Your task to perform on an android device: all mails in gmail Image 0: 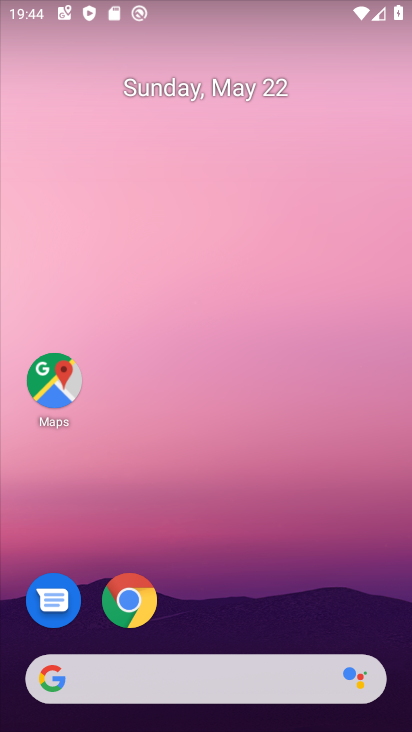
Step 0: drag from (240, 561) to (244, 0)
Your task to perform on an android device: all mails in gmail Image 1: 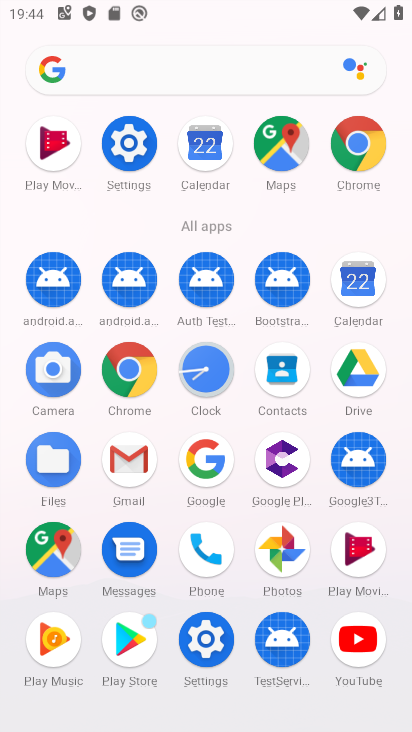
Step 1: drag from (5, 534) to (18, 328)
Your task to perform on an android device: all mails in gmail Image 2: 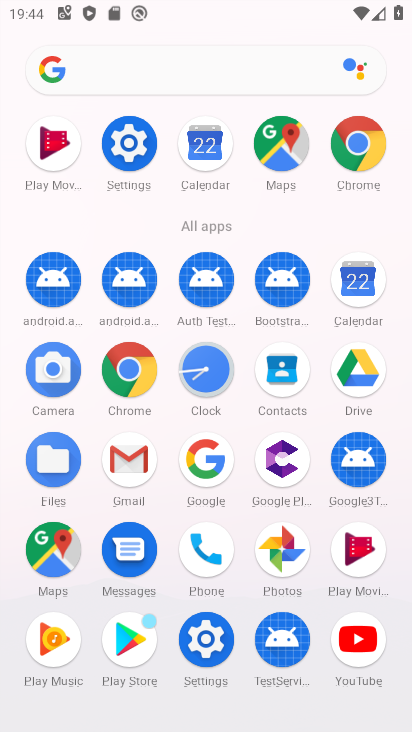
Step 2: click (123, 459)
Your task to perform on an android device: all mails in gmail Image 3: 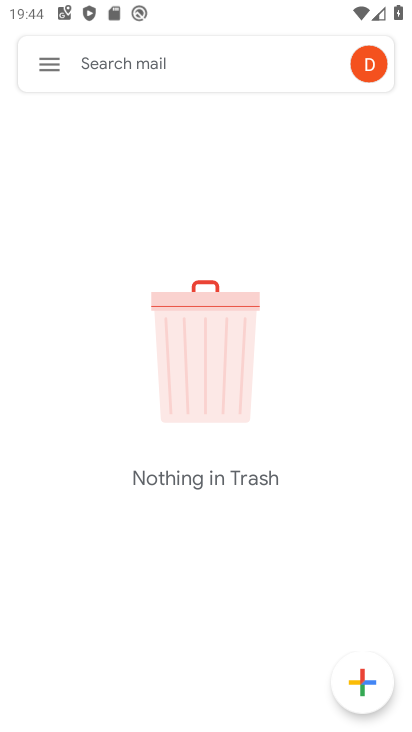
Step 3: click (32, 61)
Your task to perform on an android device: all mails in gmail Image 4: 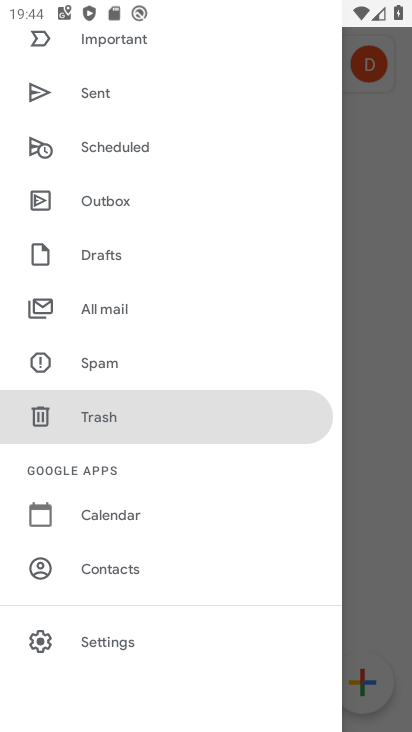
Step 4: drag from (147, 129) to (186, 487)
Your task to perform on an android device: all mails in gmail Image 5: 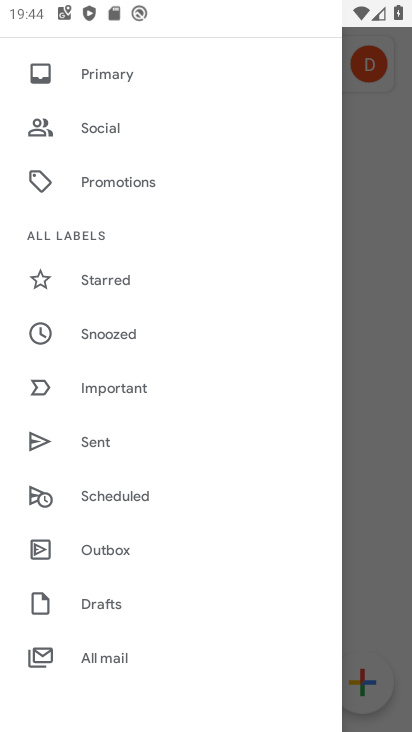
Step 5: drag from (153, 166) to (168, 620)
Your task to perform on an android device: all mails in gmail Image 6: 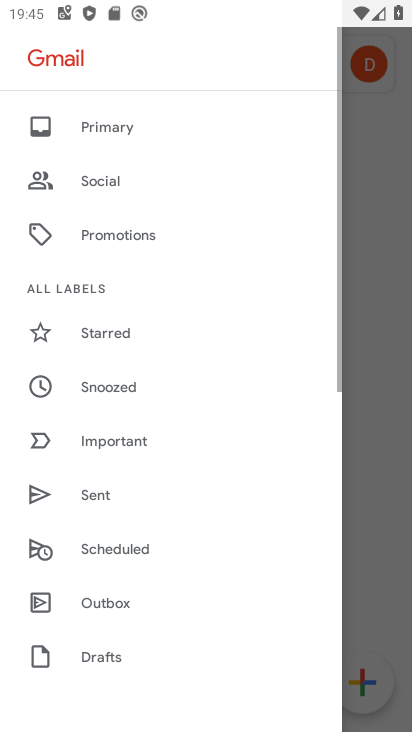
Step 6: drag from (164, 577) to (172, 202)
Your task to perform on an android device: all mails in gmail Image 7: 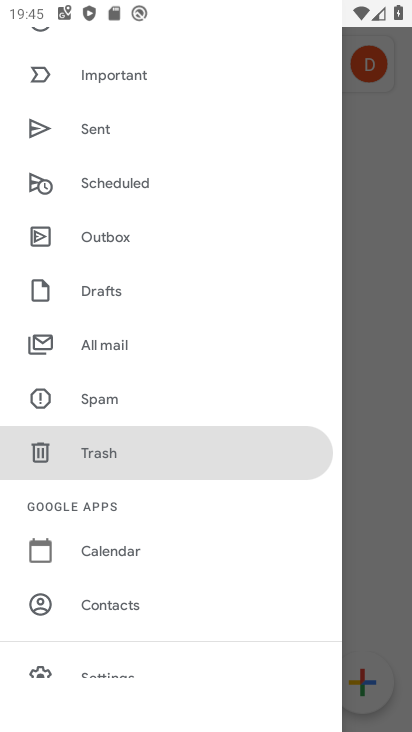
Step 7: drag from (208, 585) to (240, 171)
Your task to perform on an android device: all mails in gmail Image 8: 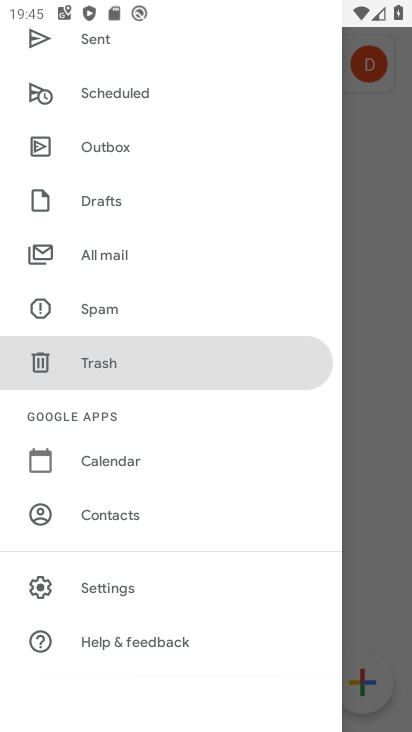
Step 8: drag from (240, 154) to (229, 433)
Your task to perform on an android device: all mails in gmail Image 9: 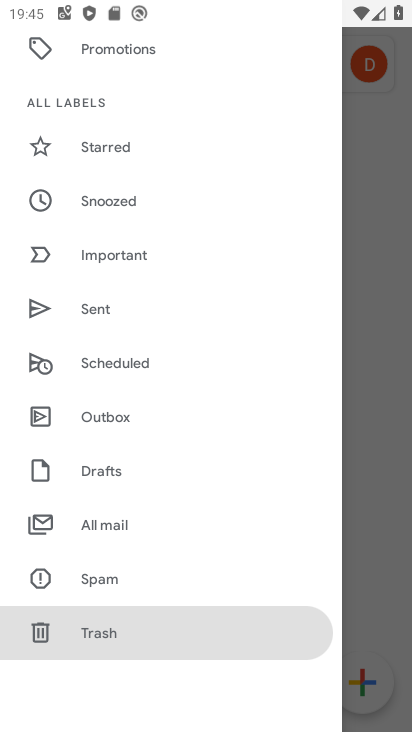
Step 9: click (85, 525)
Your task to perform on an android device: all mails in gmail Image 10: 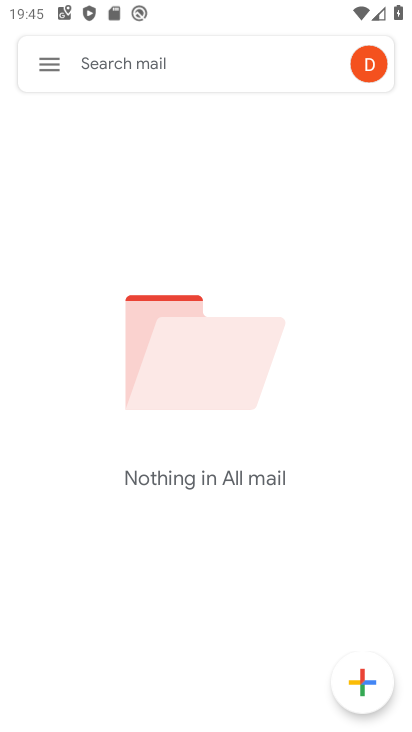
Step 10: task complete